Your task to perform on an android device: Go to Google maps Image 0: 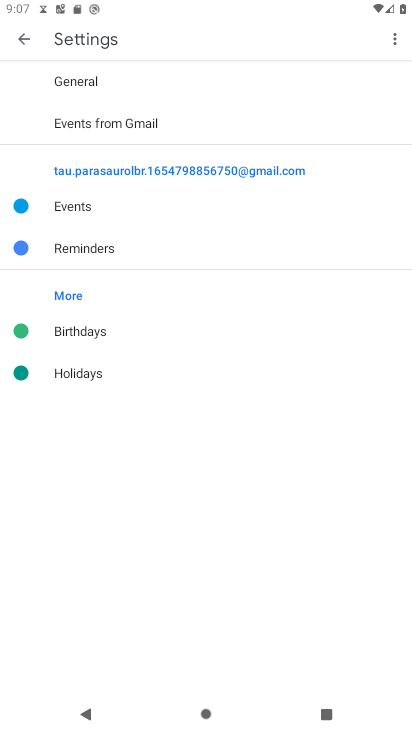
Step 0: press home button
Your task to perform on an android device: Go to Google maps Image 1: 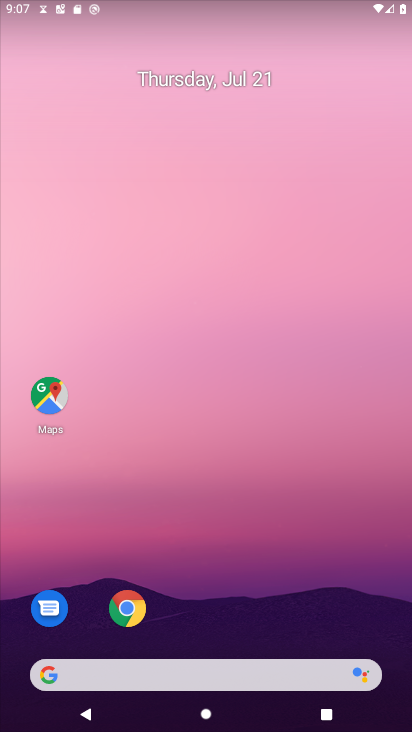
Step 1: click (142, 670)
Your task to perform on an android device: Go to Google maps Image 2: 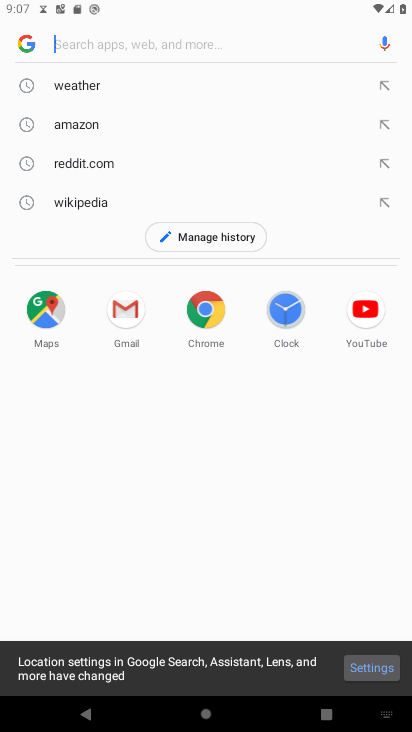
Step 2: press home button
Your task to perform on an android device: Go to Google maps Image 3: 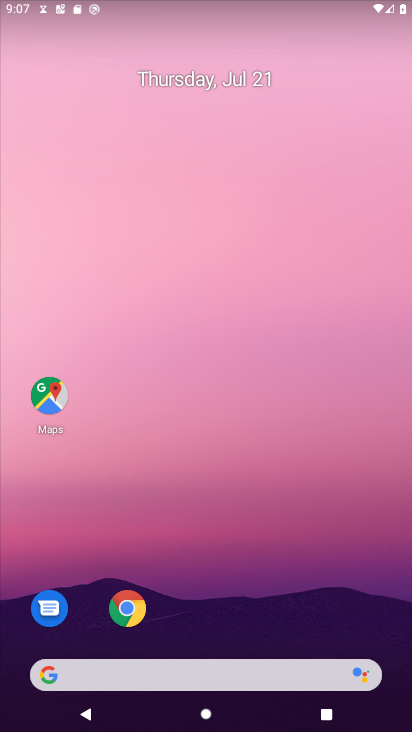
Step 3: click (42, 396)
Your task to perform on an android device: Go to Google maps Image 4: 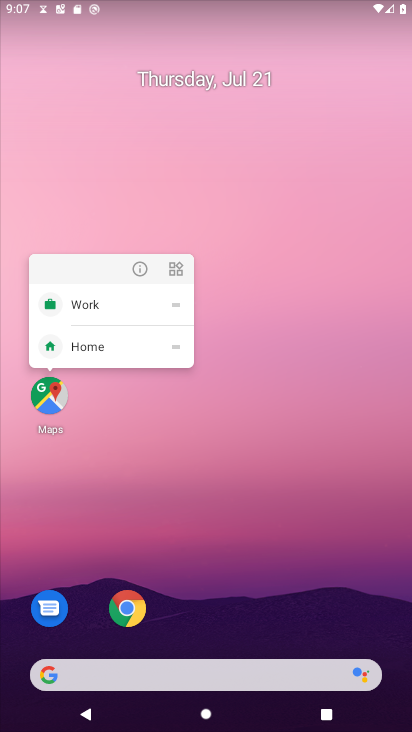
Step 4: click (53, 405)
Your task to perform on an android device: Go to Google maps Image 5: 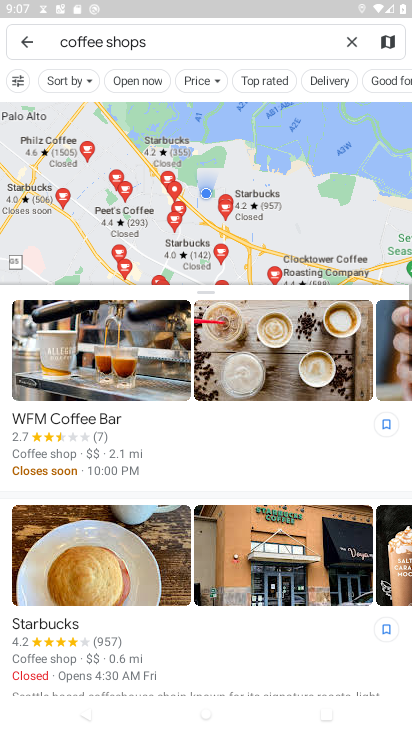
Step 5: task complete